Your task to perform on an android device: refresh tabs in the chrome app Image 0: 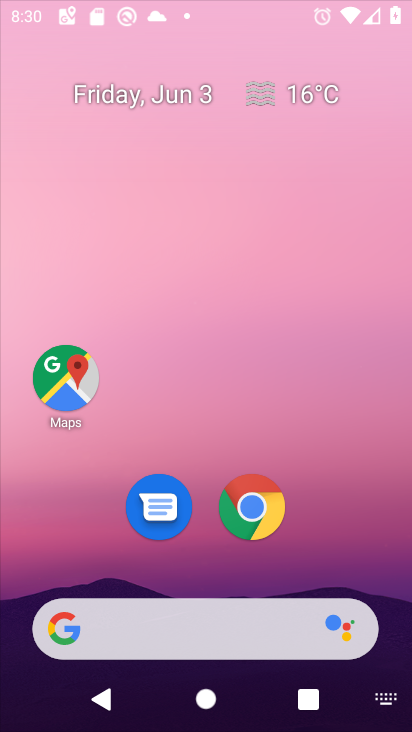
Step 0: click (256, 28)
Your task to perform on an android device: refresh tabs in the chrome app Image 1: 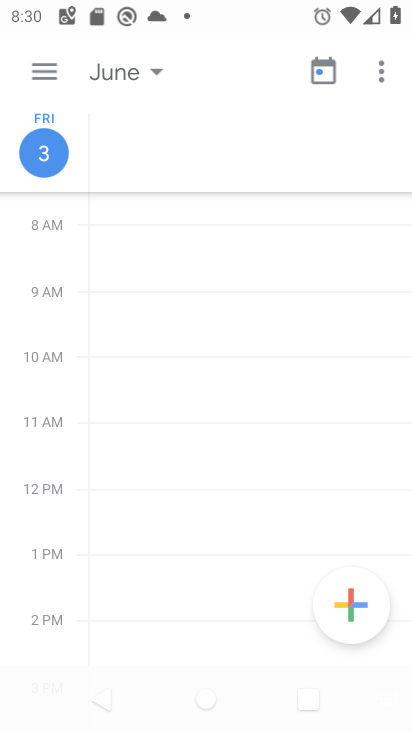
Step 1: press home button
Your task to perform on an android device: refresh tabs in the chrome app Image 2: 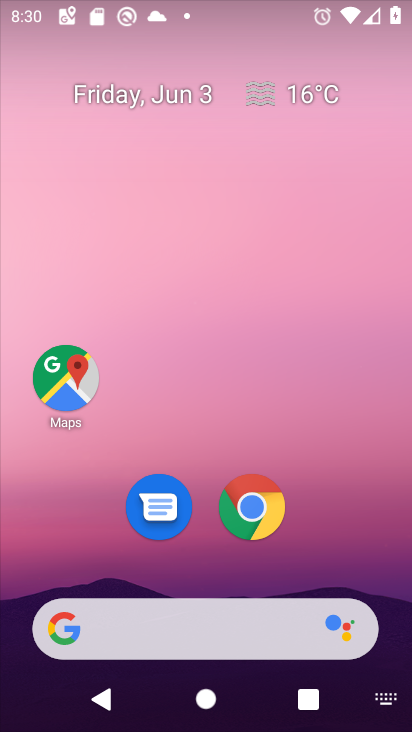
Step 2: click (266, 501)
Your task to perform on an android device: refresh tabs in the chrome app Image 3: 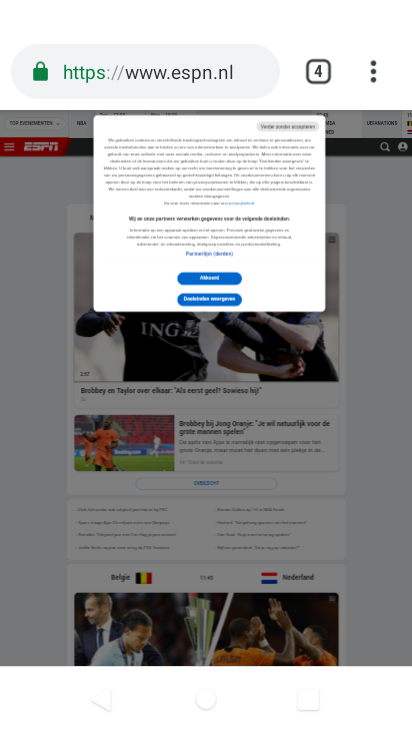
Step 3: click (376, 69)
Your task to perform on an android device: refresh tabs in the chrome app Image 4: 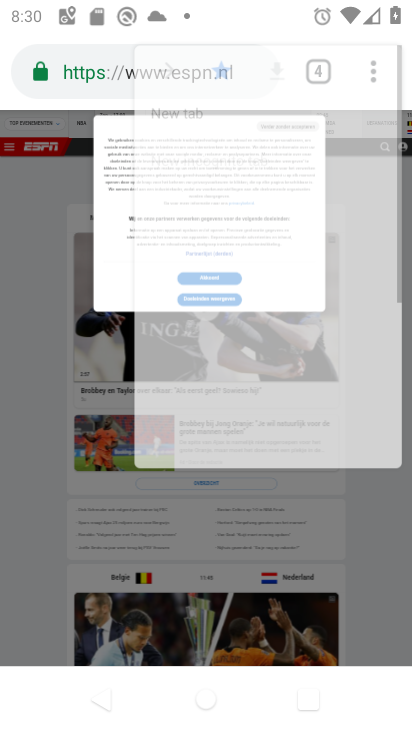
Step 4: click (376, 69)
Your task to perform on an android device: refresh tabs in the chrome app Image 5: 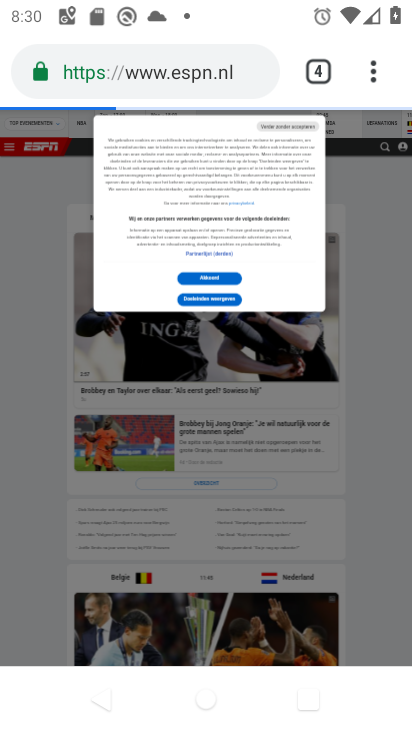
Step 5: task complete